Your task to perform on an android device: Do I have any events today? Image 0: 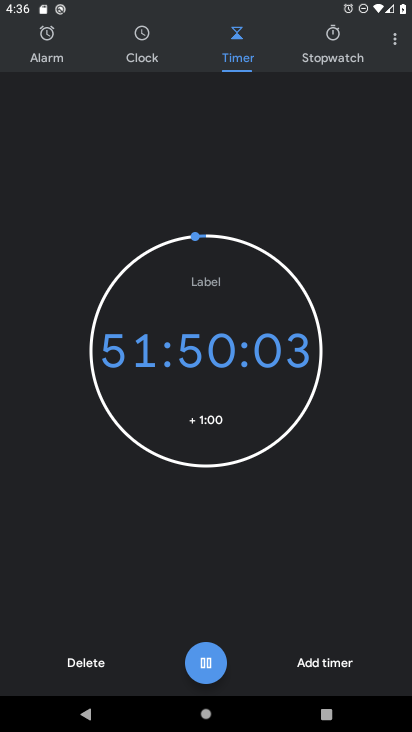
Step 0: press home button
Your task to perform on an android device: Do I have any events today? Image 1: 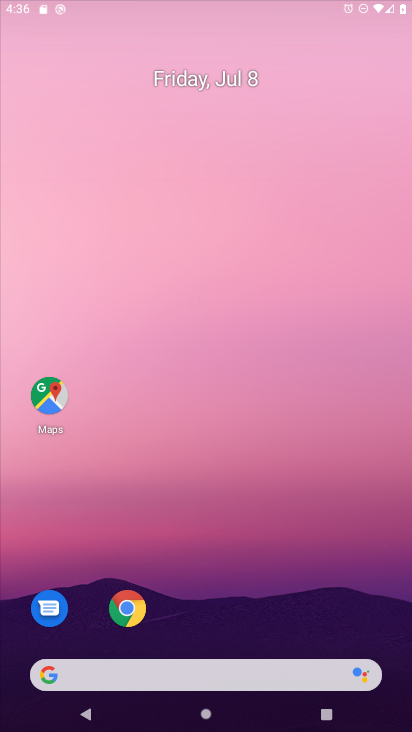
Step 1: drag from (293, 675) to (296, 27)
Your task to perform on an android device: Do I have any events today? Image 2: 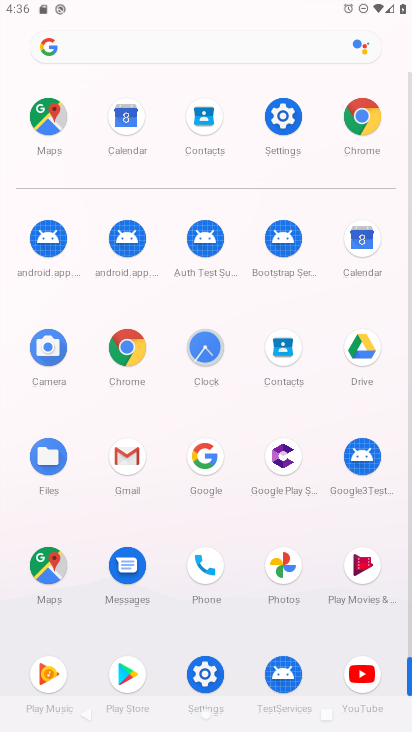
Step 2: click (367, 243)
Your task to perform on an android device: Do I have any events today? Image 3: 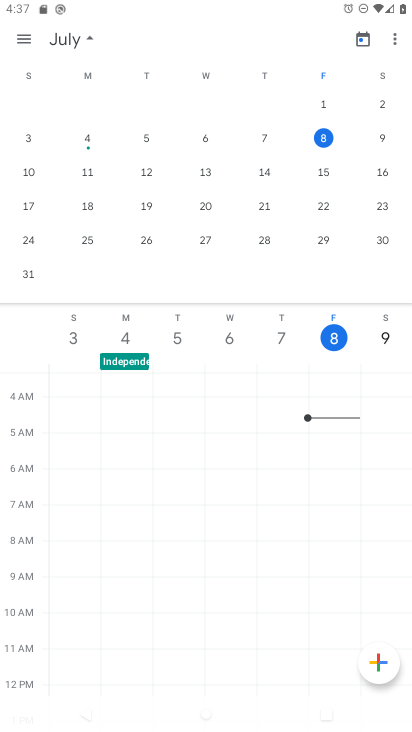
Step 3: click (322, 141)
Your task to perform on an android device: Do I have any events today? Image 4: 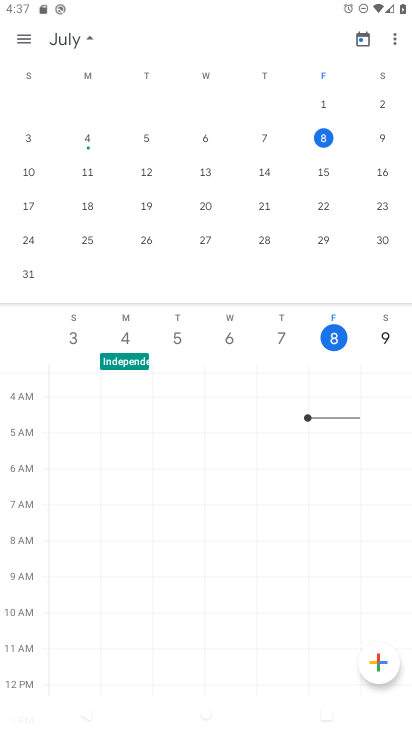
Step 4: task complete